Your task to perform on an android device: Open Google Maps Image 0: 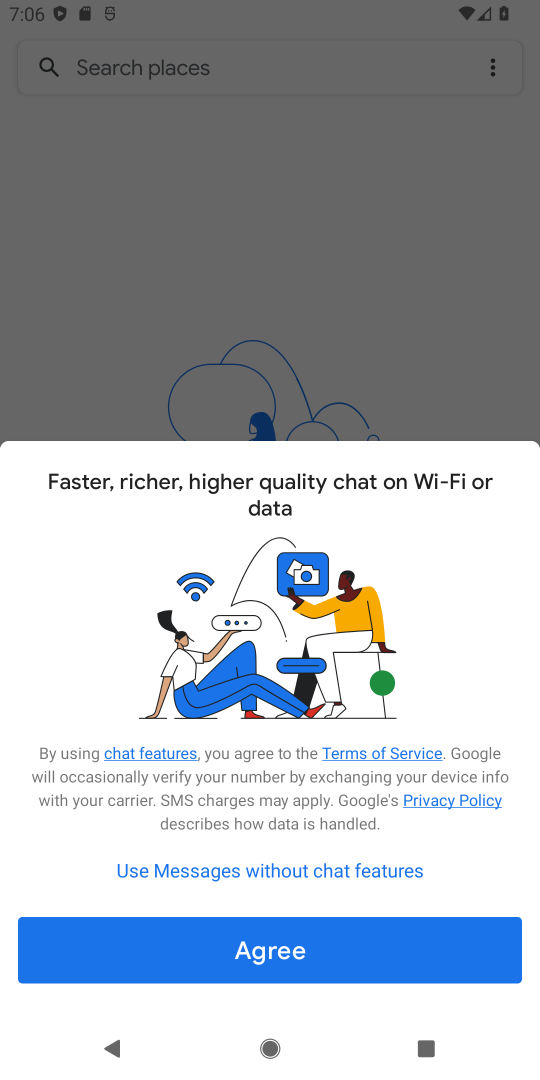
Step 0: press home button
Your task to perform on an android device: Open Google Maps Image 1: 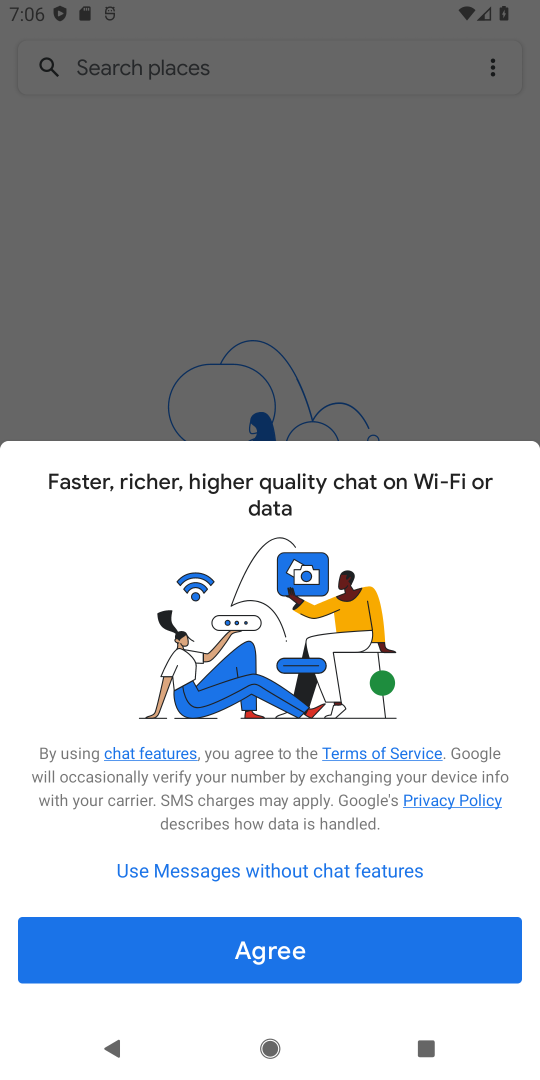
Step 1: press home button
Your task to perform on an android device: Open Google Maps Image 2: 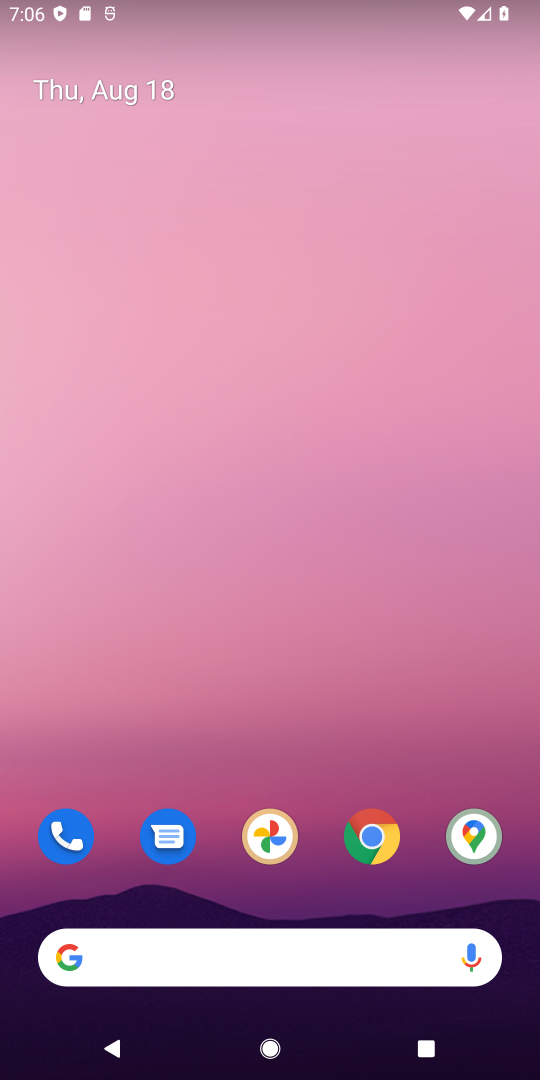
Step 2: drag from (165, 12) to (223, 9)
Your task to perform on an android device: Open Google Maps Image 3: 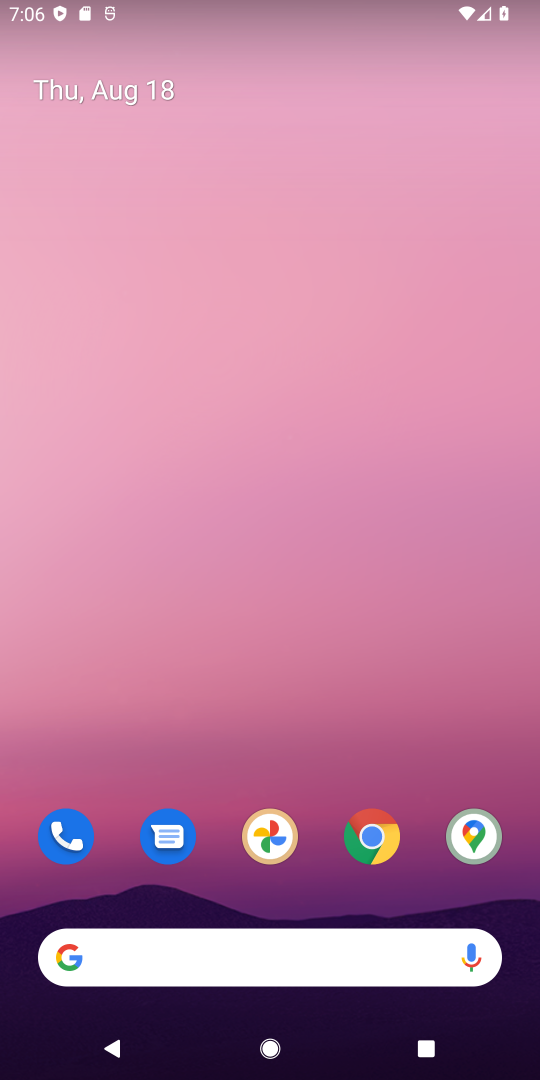
Step 3: drag from (266, 638) to (177, 161)
Your task to perform on an android device: Open Google Maps Image 4: 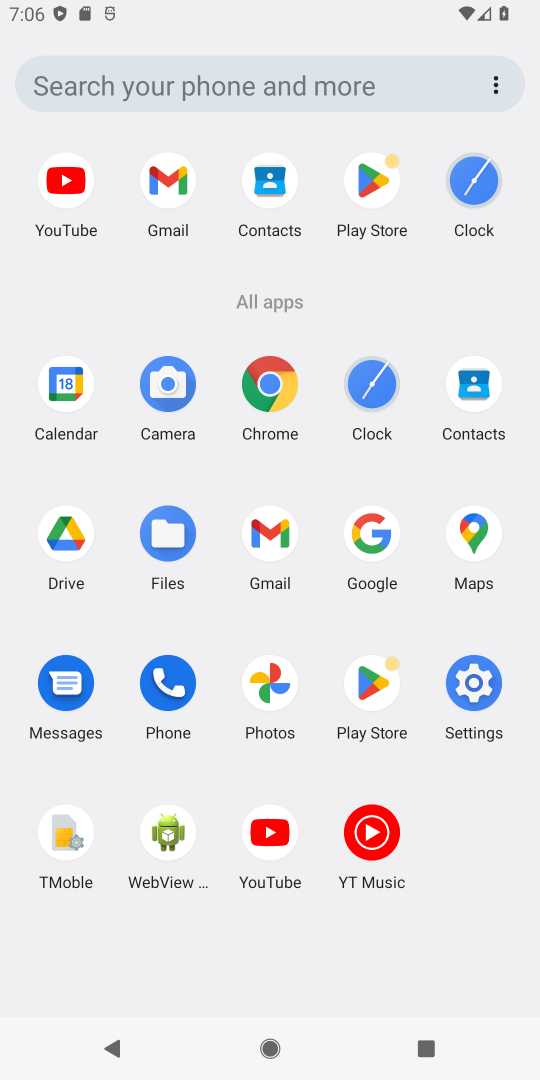
Step 4: click (477, 552)
Your task to perform on an android device: Open Google Maps Image 5: 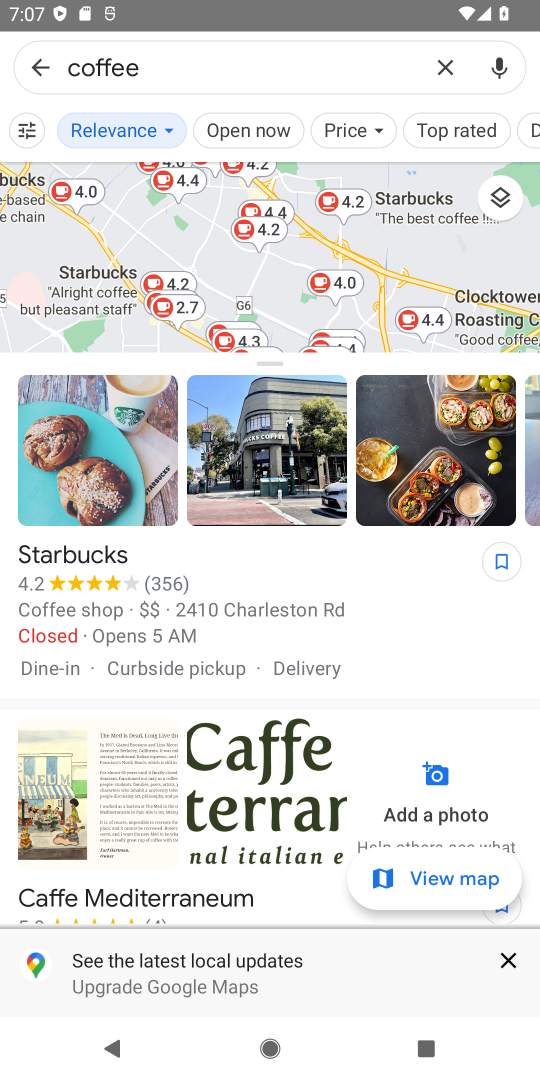
Step 5: task complete